Your task to perform on an android device: Open settings Image 0: 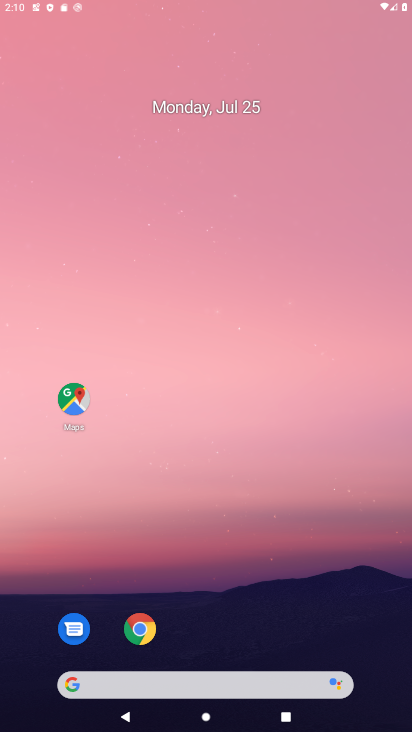
Step 0: drag from (282, 105) to (281, 174)
Your task to perform on an android device: Open settings Image 1: 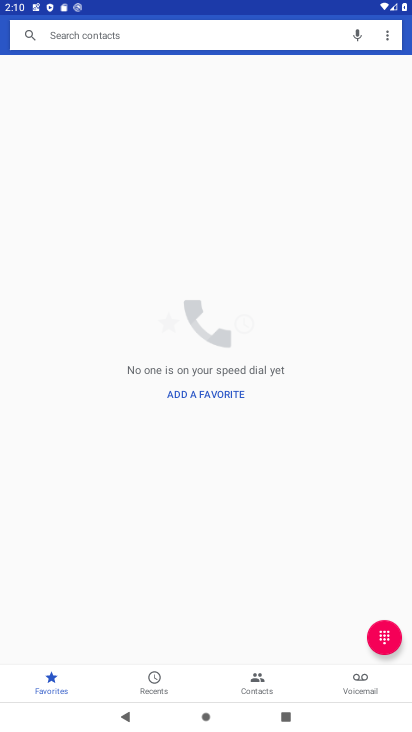
Step 1: press home button
Your task to perform on an android device: Open settings Image 2: 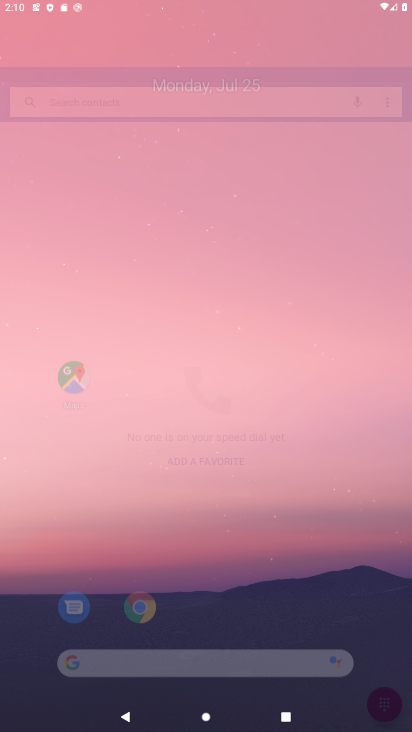
Step 2: drag from (189, 587) to (212, 48)
Your task to perform on an android device: Open settings Image 3: 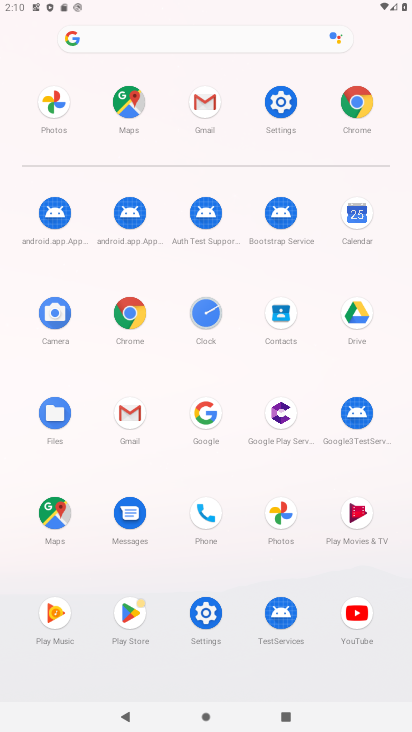
Step 3: click (281, 107)
Your task to perform on an android device: Open settings Image 4: 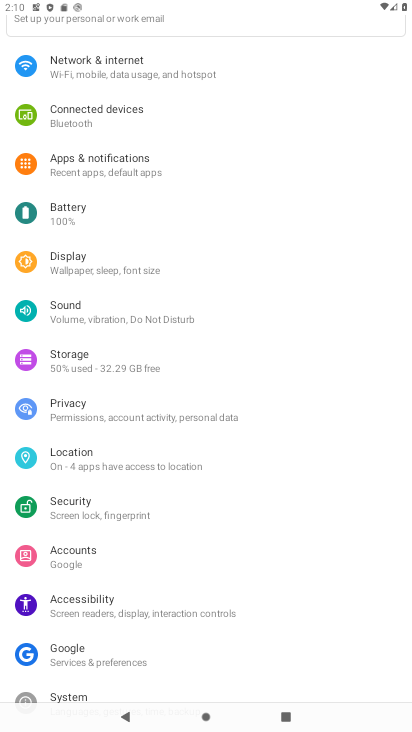
Step 4: task complete